Your task to perform on an android device: turn on showing notifications on the lock screen Image 0: 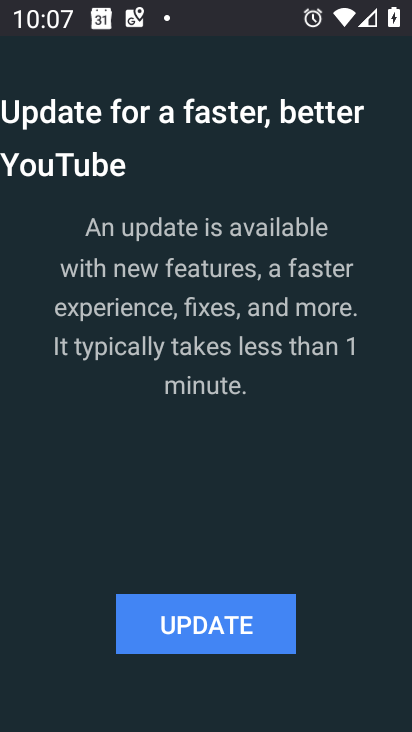
Step 0: press back button
Your task to perform on an android device: turn on showing notifications on the lock screen Image 1: 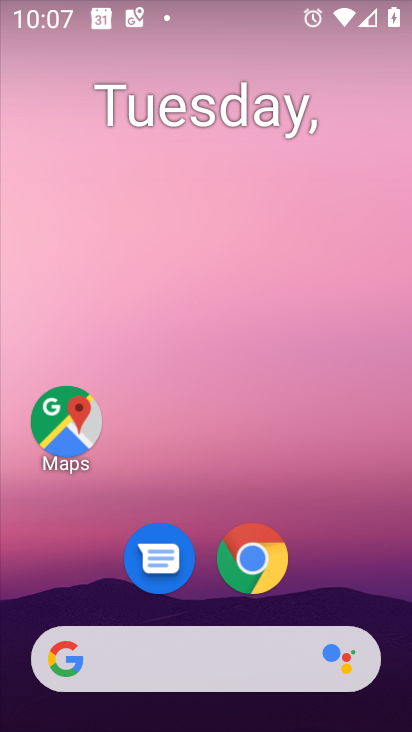
Step 1: click (162, 15)
Your task to perform on an android device: turn on showing notifications on the lock screen Image 2: 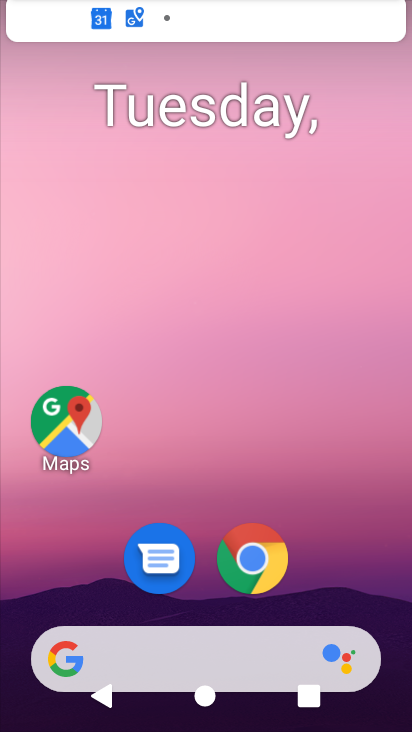
Step 2: drag from (323, 445) to (161, 15)
Your task to perform on an android device: turn on showing notifications on the lock screen Image 3: 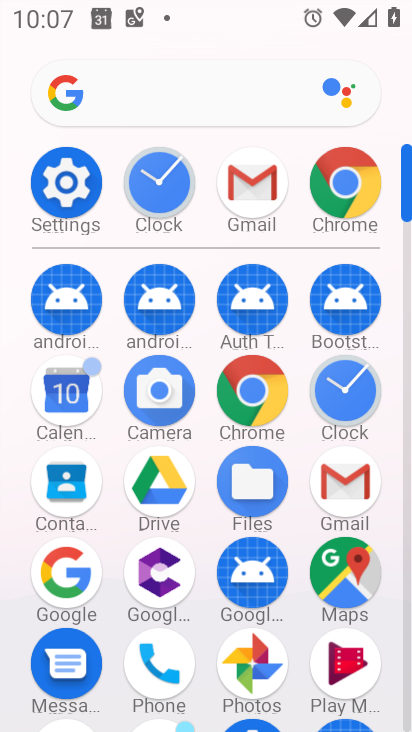
Step 3: click (68, 168)
Your task to perform on an android device: turn on showing notifications on the lock screen Image 4: 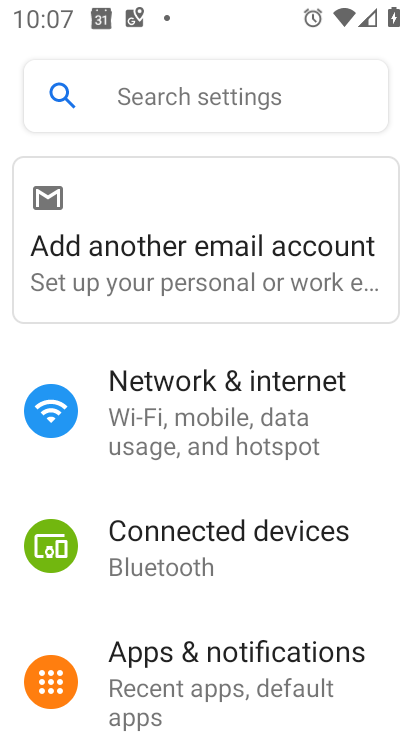
Step 4: click (68, 168)
Your task to perform on an android device: turn on showing notifications on the lock screen Image 5: 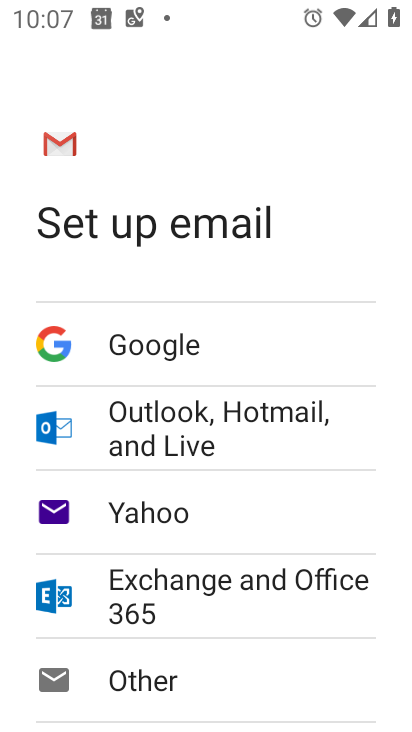
Step 5: press back button
Your task to perform on an android device: turn on showing notifications on the lock screen Image 6: 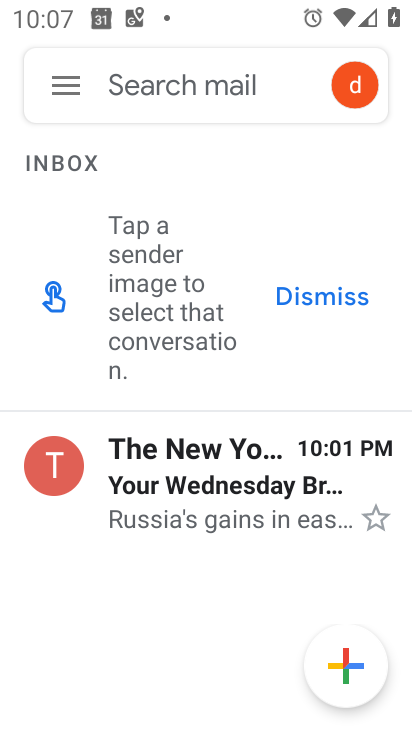
Step 6: press back button
Your task to perform on an android device: turn on showing notifications on the lock screen Image 7: 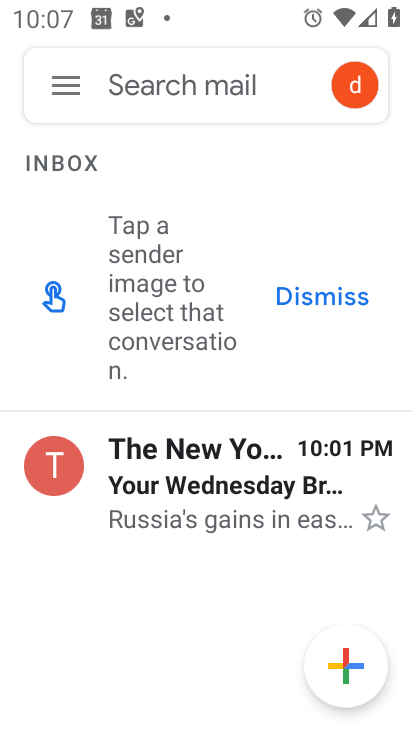
Step 7: press back button
Your task to perform on an android device: turn on showing notifications on the lock screen Image 8: 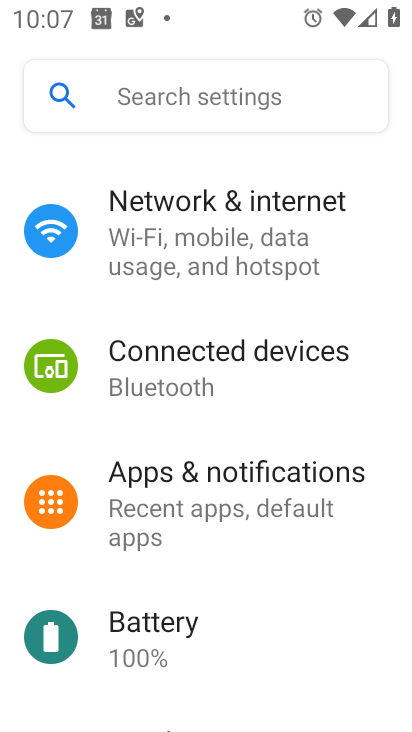
Step 8: press back button
Your task to perform on an android device: turn on showing notifications on the lock screen Image 9: 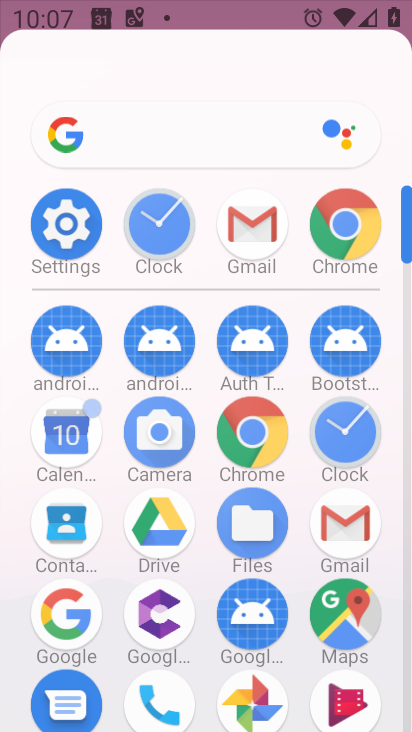
Step 9: press back button
Your task to perform on an android device: turn on showing notifications on the lock screen Image 10: 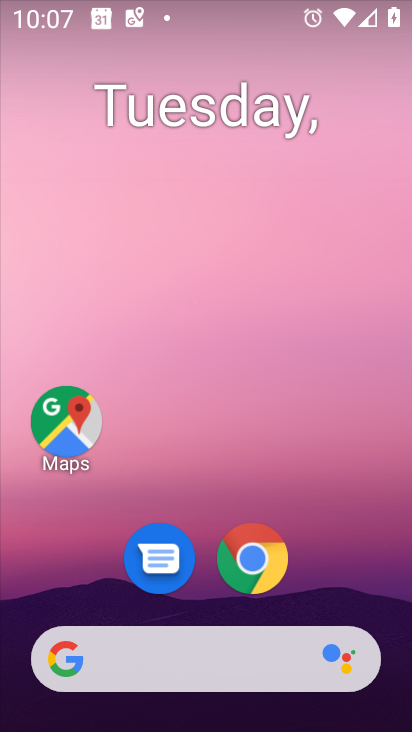
Step 10: press back button
Your task to perform on an android device: turn on showing notifications on the lock screen Image 11: 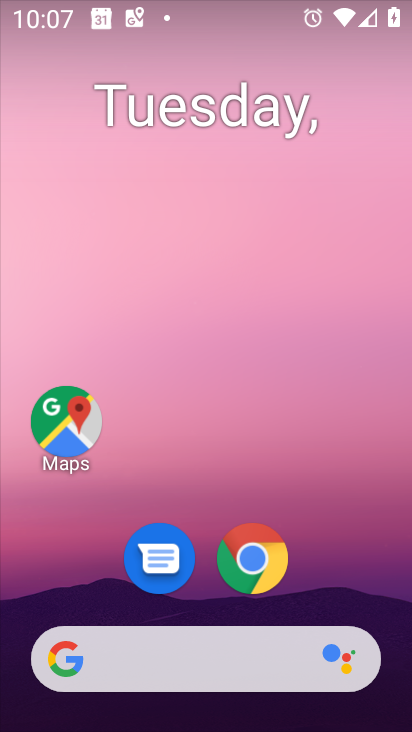
Step 11: press back button
Your task to perform on an android device: turn on showing notifications on the lock screen Image 12: 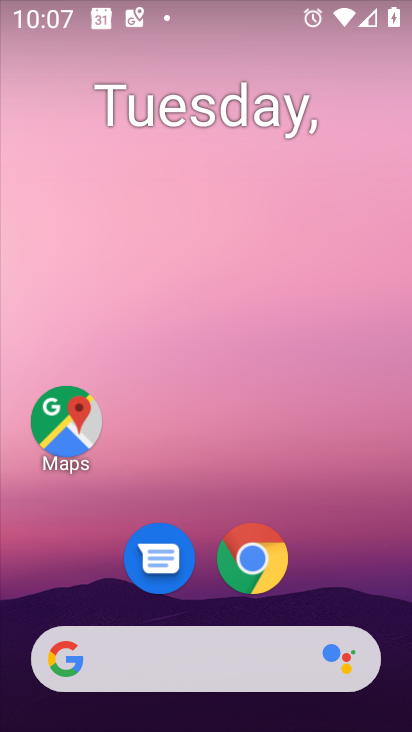
Step 12: press back button
Your task to perform on an android device: turn on showing notifications on the lock screen Image 13: 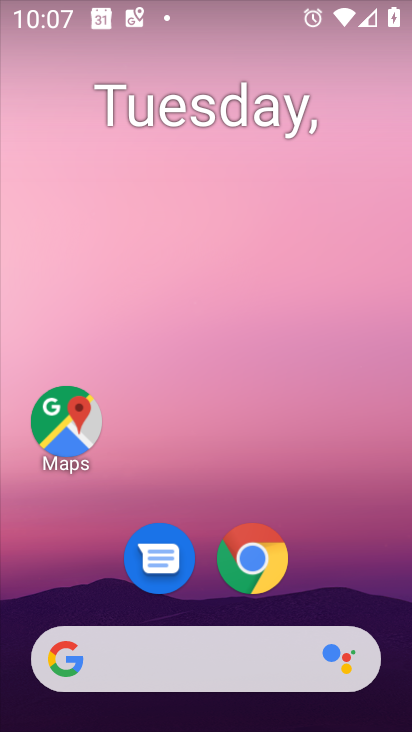
Step 13: drag from (387, 571) to (214, 61)
Your task to perform on an android device: turn on showing notifications on the lock screen Image 14: 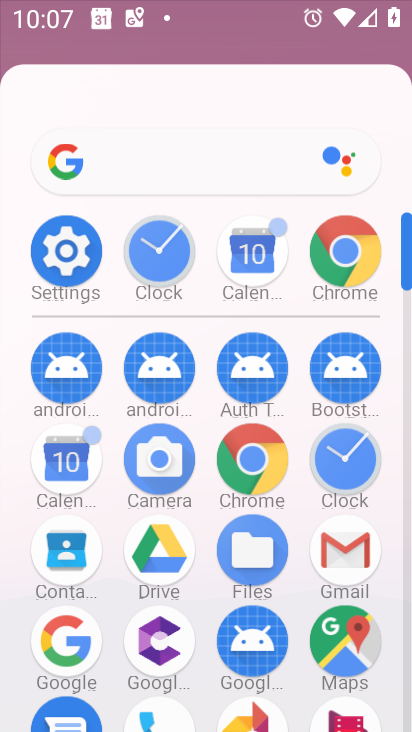
Step 14: drag from (321, 459) to (248, 3)
Your task to perform on an android device: turn on showing notifications on the lock screen Image 15: 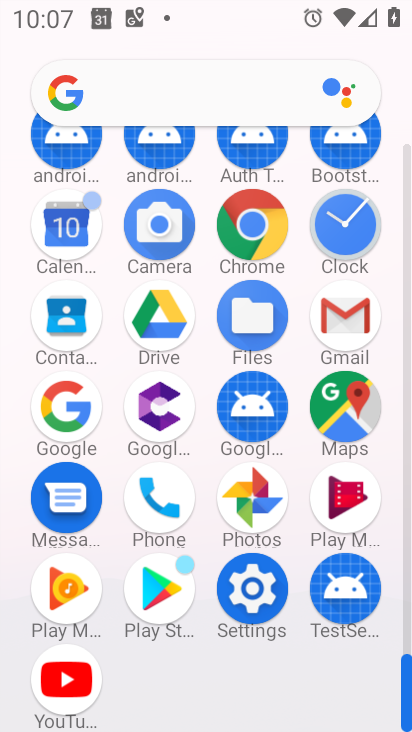
Step 15: click (272, 579)
Your task to perform on an android device: turn on showing notifications on the lock screen Image 16: 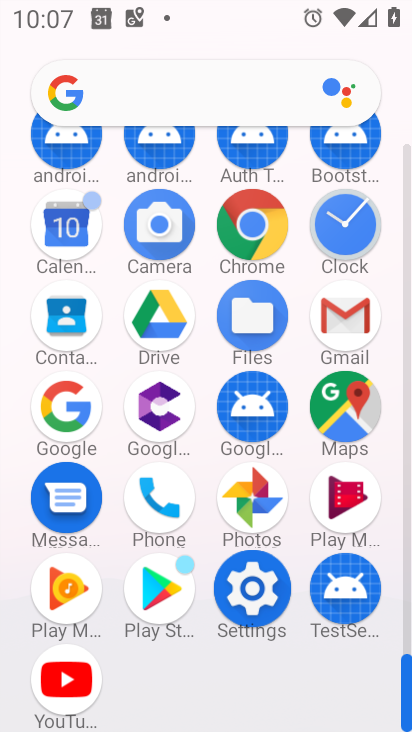
Step 16: click (264, 579)
Your task to perform on an android device: turn on showing notifications on the lock screen Image 17: 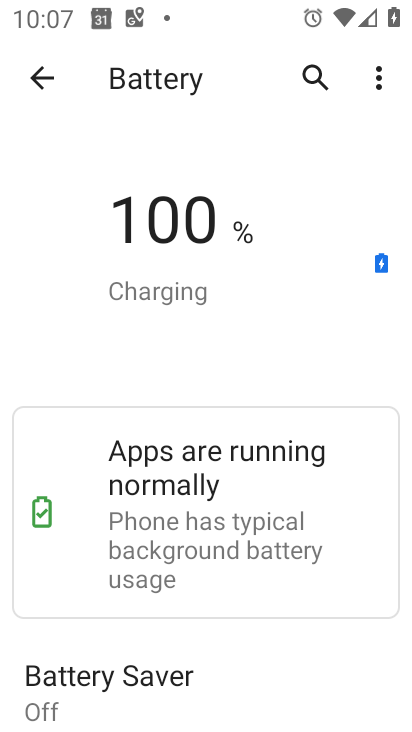
Step 17: click (41, 81)
Your task to perform on an android device: turn on showing notifications on the lock screen Image 18: 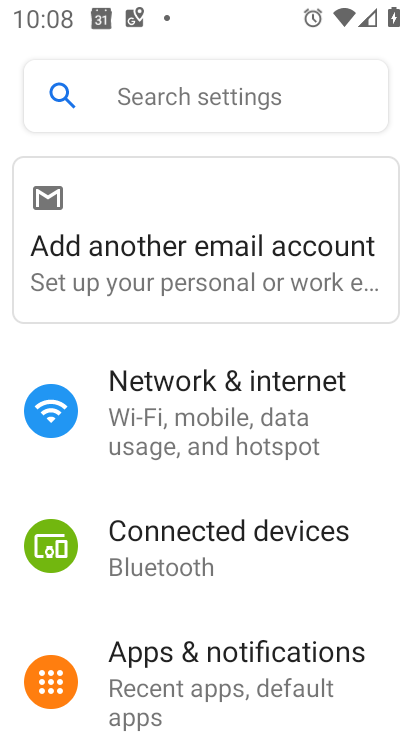
Step 18: click (205, 661)
Your task to perform on an android device: turn on showing notifications on the lock screen Image 19: 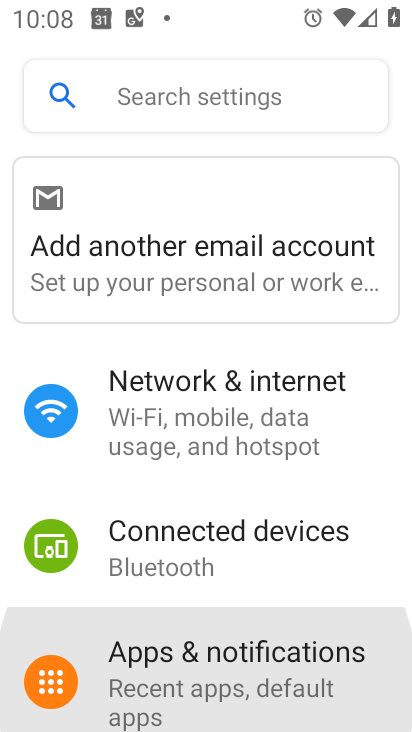
Step 19: click (207, 664)
Your task to perform on an android device: turn on showing notifications on the lock screen Image 20: 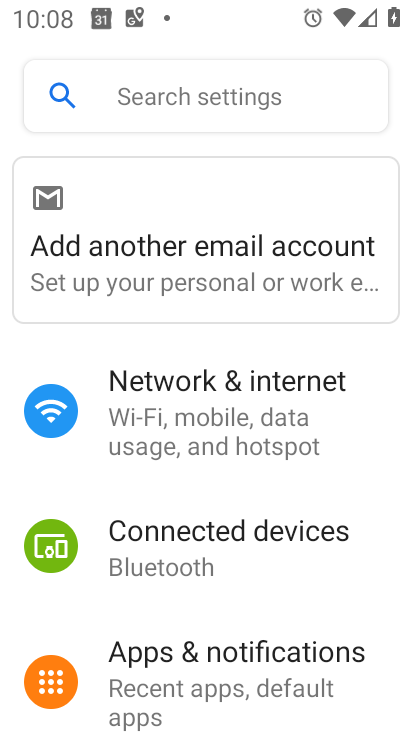
Step 20: click (207, 664)
Your task to perform on an android device: turn on showing notifications on the lock screen Image 21: 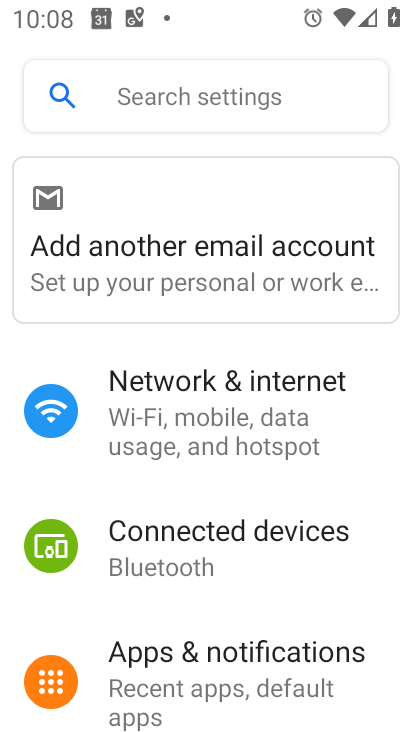
Step 21: click (208, 665)
Your task to perform on an android device: turn on showing notifications on the lock screen Image 22: 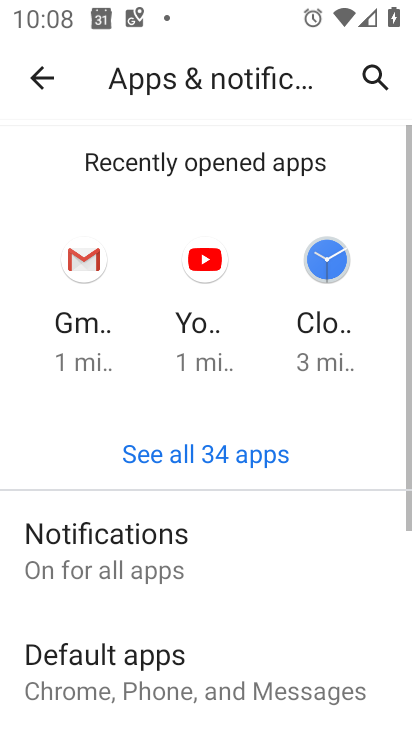
Step 22: click (97, 555)
Your task to perform on an android device: turn on showing notifications on the lock screen Image 23: 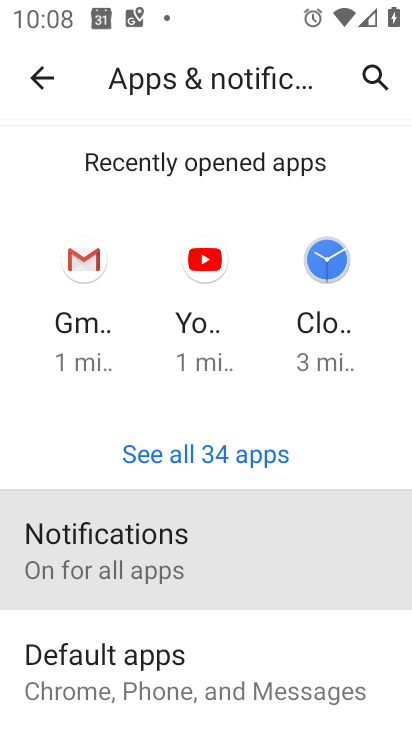
Step 23: click (87, 545)
Your task to perform on an android device: turn on showing notifications on the lock screen Image 24: 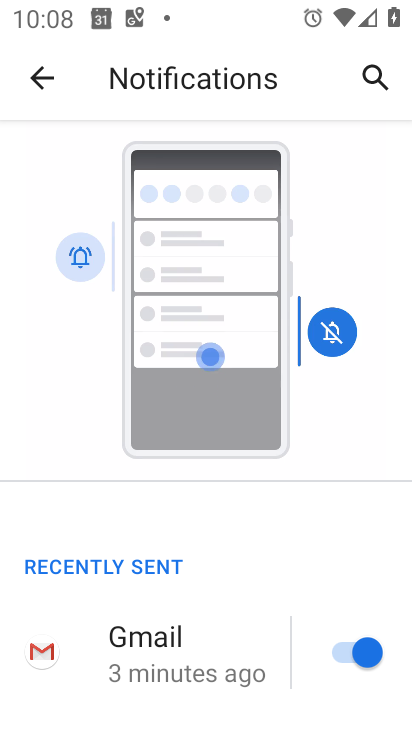
Step 24: drag from (339, 653) to (64, 119)
Your task to perform on an android device: turn on showing notifications on the lock screen Image 25: 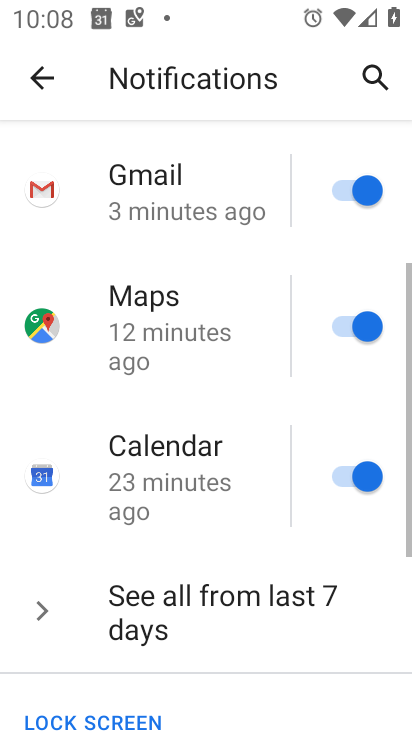
Step 25: drag from (203, 640) to (160, 326)
Your task to perform on an android device: turn on showing notifications on the lock screen Image 26: 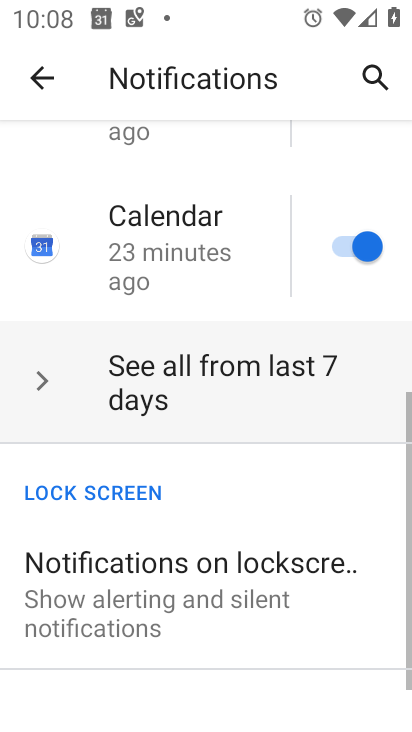
Step 26: drag from (203, 503) to (181, 200)
Your task to perform on an android device: turn on showing notifications on the lock screen Image 27: 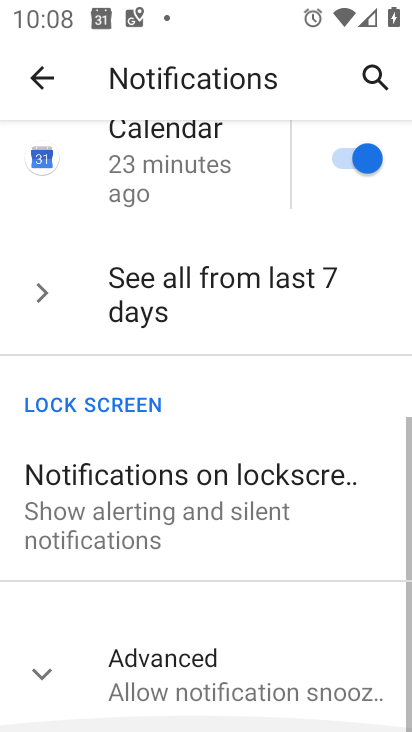
Step 27: drag from (215, 542) to (210, 188)
Your task to perform on an android device: turn on showing notifications on the lock screen Image 28: 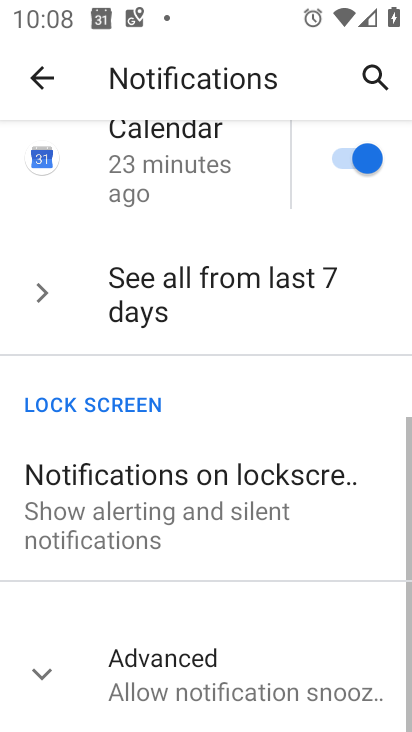
Step 28: click (177, 479)
Your task to perform on an android device: turn on showing notifications on the lock screen Image 29: 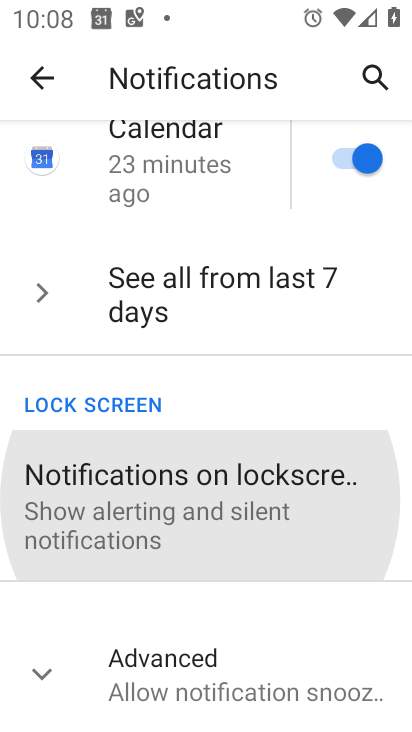
Step 29: click (175, 474)
Your task to perform on an android device: turn on showing notifications on the lock screen Image 30: 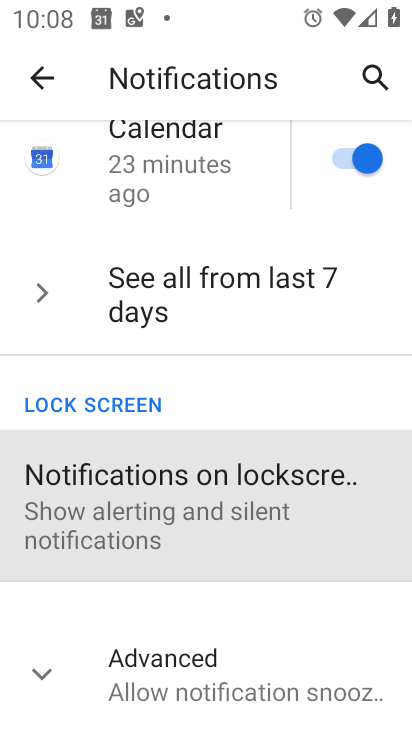
Step 30: click (177, 463)
Your task to perform on an android device: turn on showing notifications on the lock screen Image 31: 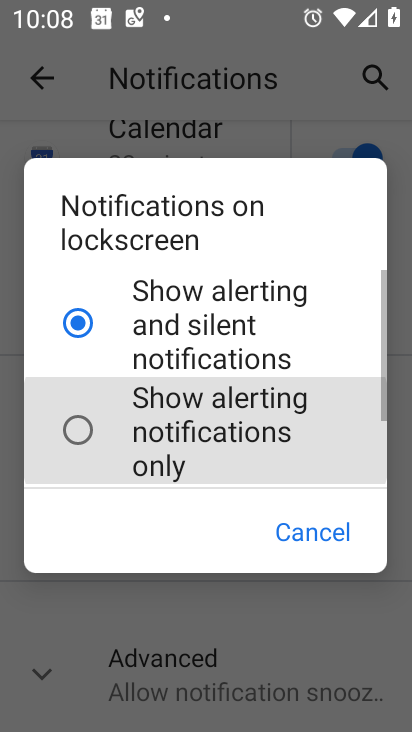
Step 31: click (189, 472)
Your task to perform on an android device: turn on showing notifications on the lock screen Image 32: 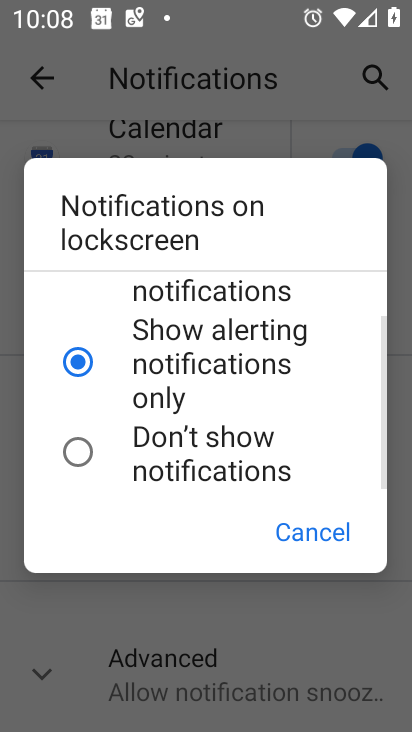
Step 32: click (69, 454)
Your task to perform on an android device: turn on showing notifications on the lock screen Image 33: 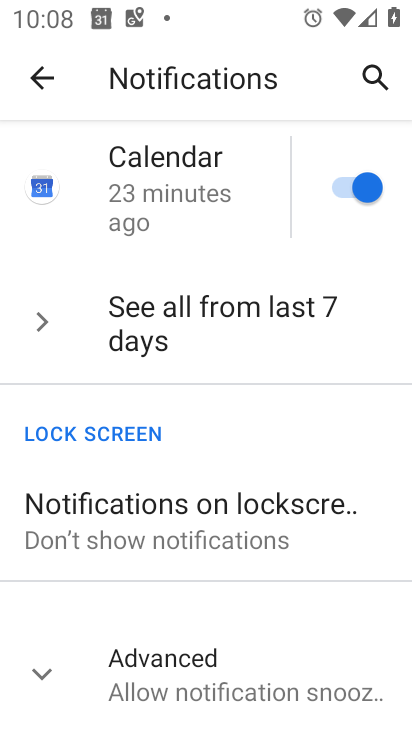
Step 33: click (190, 517)
Your task to perform on an android device: turn on showing notifications on the lock screen Image 34: 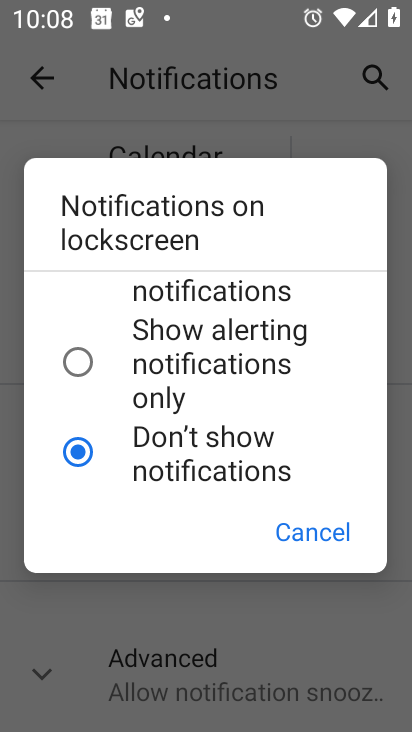
Step 34: drag from (139, 450) to (116, 196)
Your task to perform on an android device: turn on showing notifications on the lock screen Image 35: 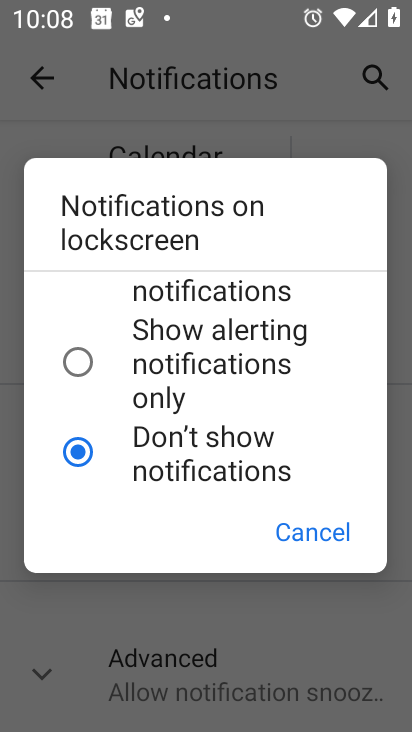
Step 35: drag from (182, 331) to (242, 518)
Your task to perform on an android device: turn on showing notifications on the lock screen Image 36: 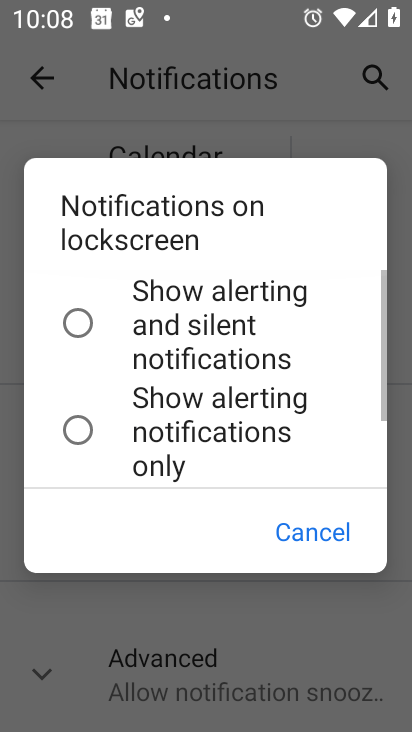
Step 36: drag from (203, 338) to (202, 577)
Your task to perform on an android device: turn on showing notifications on the lock screen Image 37: 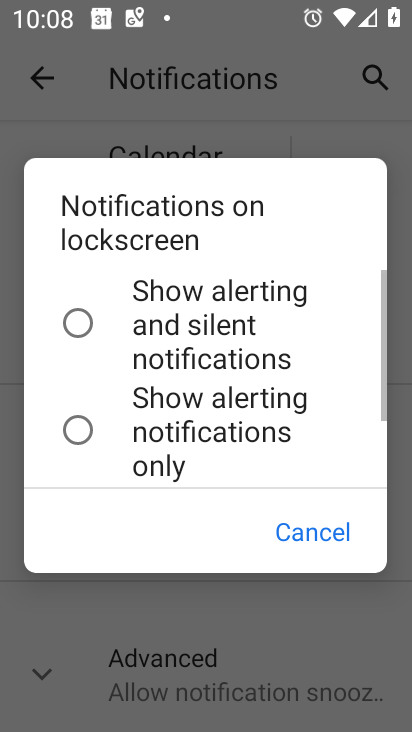
Step 37: drag from (92, 311) to (143, 564)
Your task to perform on an android device: turn on showing notifications on the lock screen Image 38: 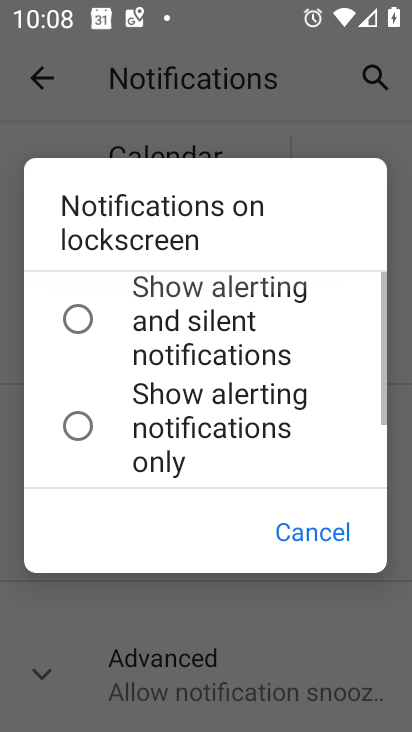
Step 38: drag from (127, 335) to (190, 610)
Your task to perform on an android device: turn on showing notifications on the lock screen Image 39: 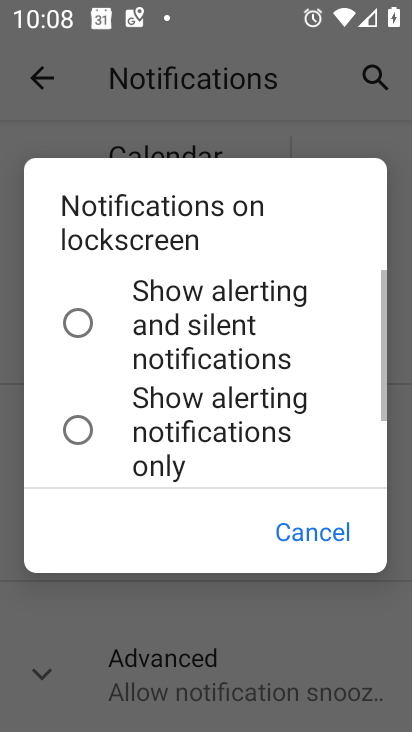
Step 39: drag from (148, 280) to (176, 408)
Your task to perform on an android device: turn on showing notifications on the lock screen Image 40: 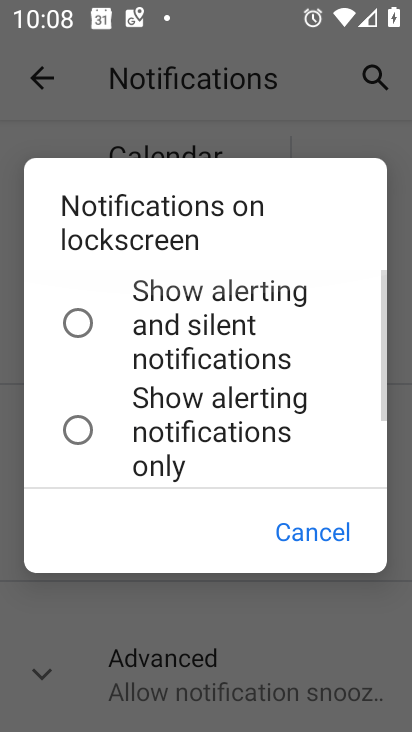
Step 40: drag from (168, 334) to (226, 588)
Your task to perform on an android device: turn on showing notifications on the lock screen Image 41: 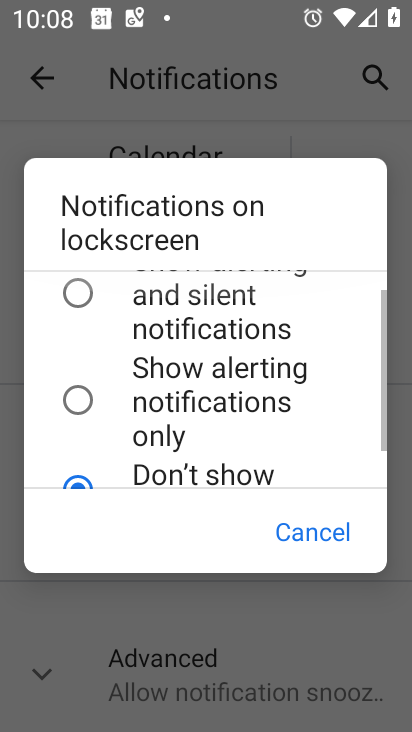
Step 41: drag from (196, 375) to (250, 601)
Your task to perform on an android device: turn on showing notifications on the lock screen Image 42: 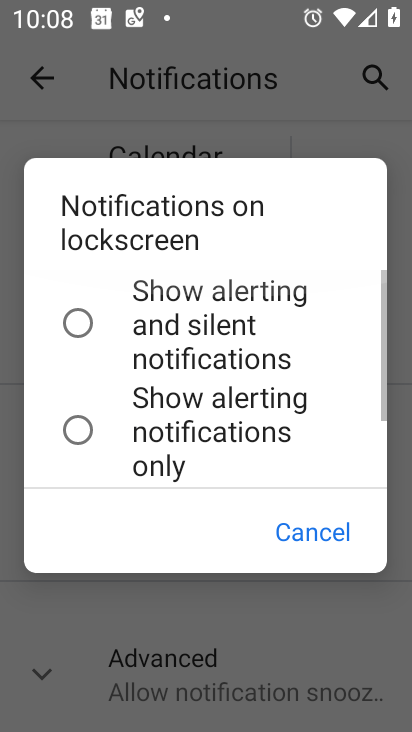
Step 42: drag from (238, 391) to (252, 646)
Your task to perform on an android device: turn on showing notifications on the lock screen Image 43: 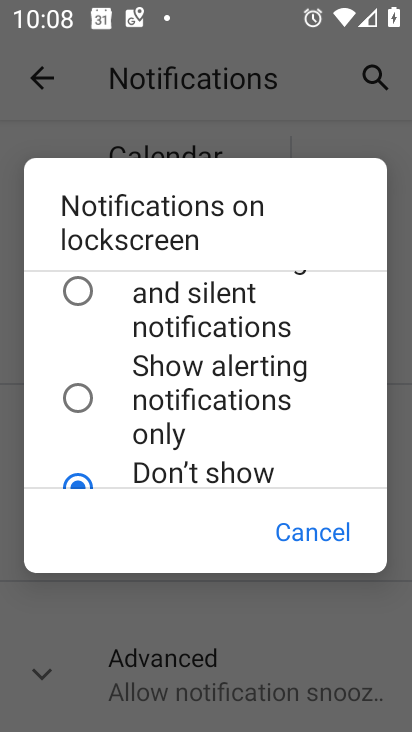
Step 43: click (213, 579)
Your task to perform on an android device: turn on showing notifications on the lock screen Image 44: 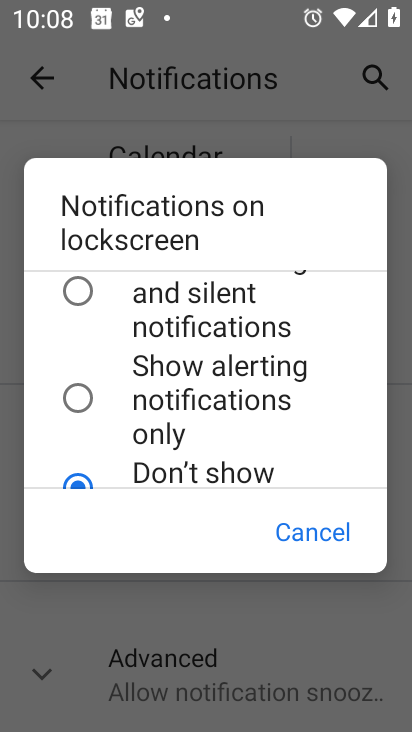
Step 44: click (91, 293)
Your task to perform on an android device: turn on showing notifications on the lock screen Image 45: 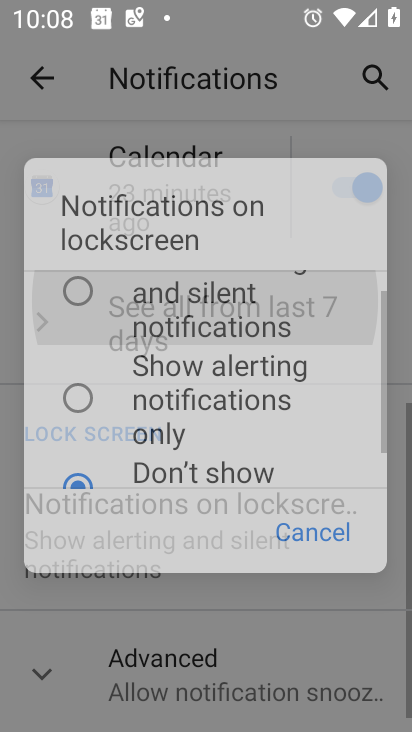
Step 45: click (68, 263)
Your task to perform on an android device: turn on showing notifications on the lock screen Image 46: 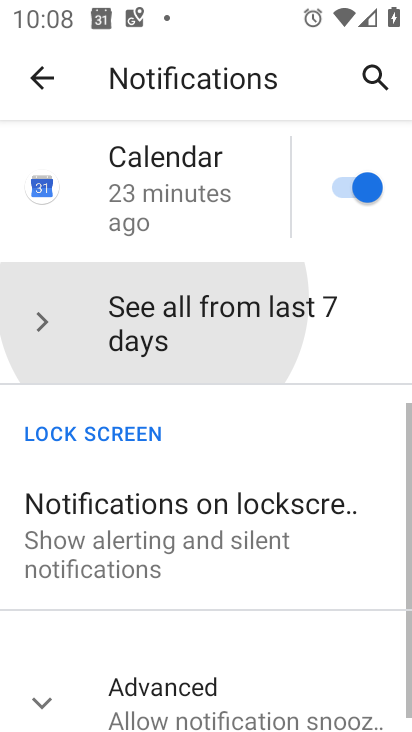
Step 46: click (84, 289)
Your task to perform on an android device: turn on showing notifications on the lock screen Image 47: 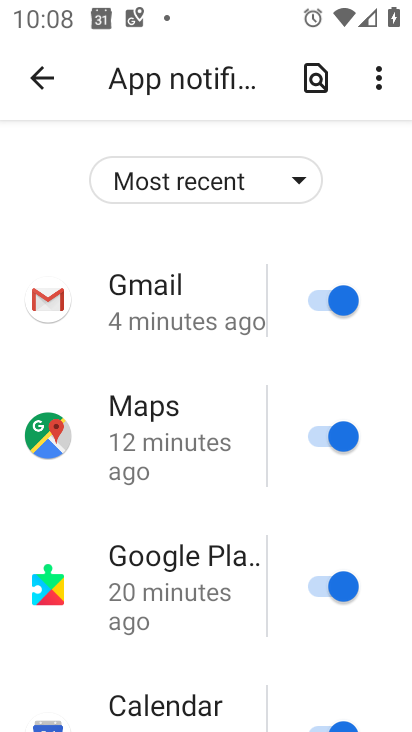
Step 47: task complete